Your task to perform on an android device: turn on improve location accuracy Image 0: 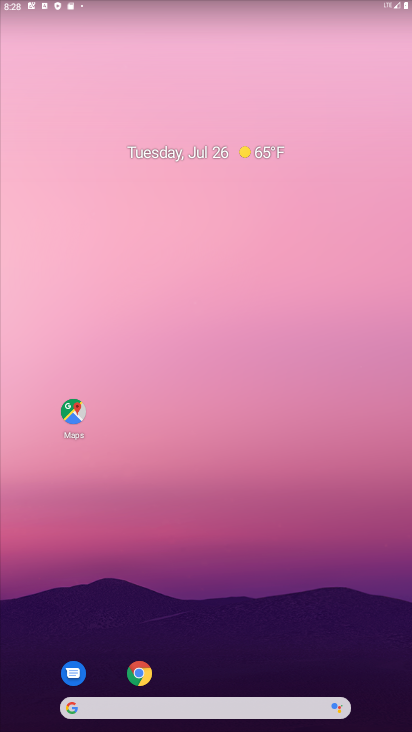
Step 0: drag from (211, 671) to (221, 238)
Your task to perform on an android device: turn on improve location accuracy Image 1: 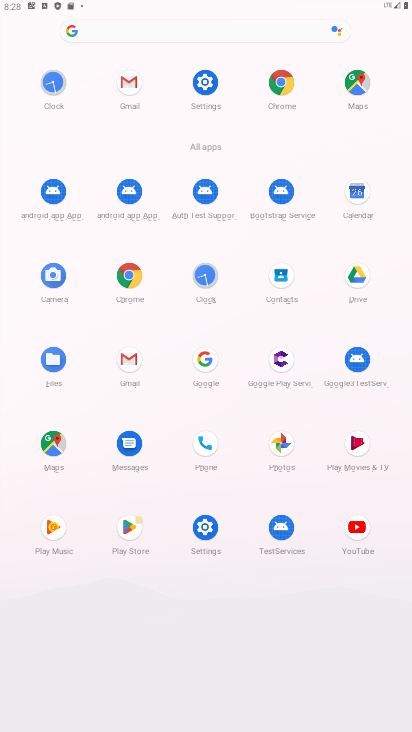
Step 1: click (214, 84)
Your task to perform on an android device: turn on improve location accuracy Image 2: 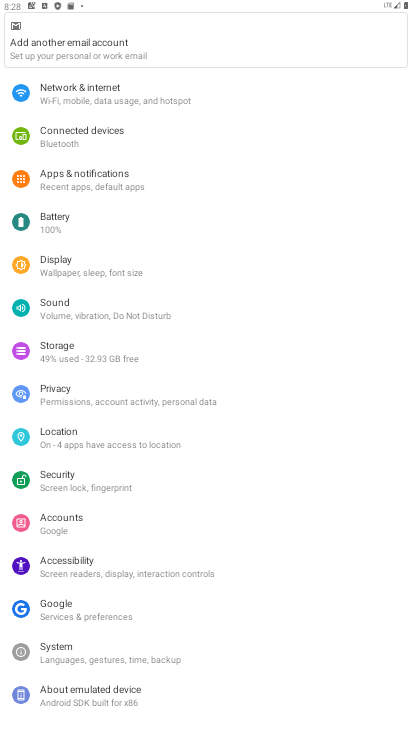
Step 2: click (124, 433)
Your task to perform on an android device: turn on improve location accuracy Image 3: 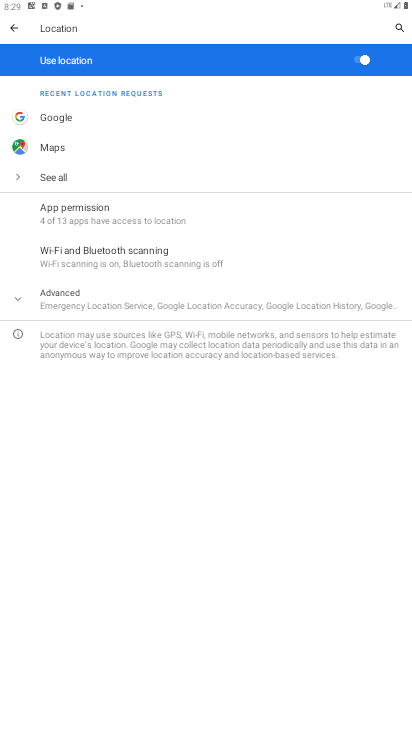
Step 3: click (75, 315)
Your task to perform on an android device: turn on improve location accuracy Image 4: 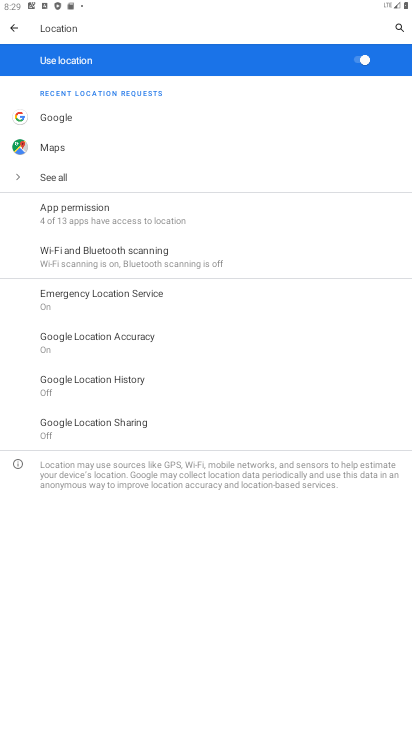
Step 4: click (138, 343)
Your task to perform on an android device: turn on improve location accuracy Image 5: 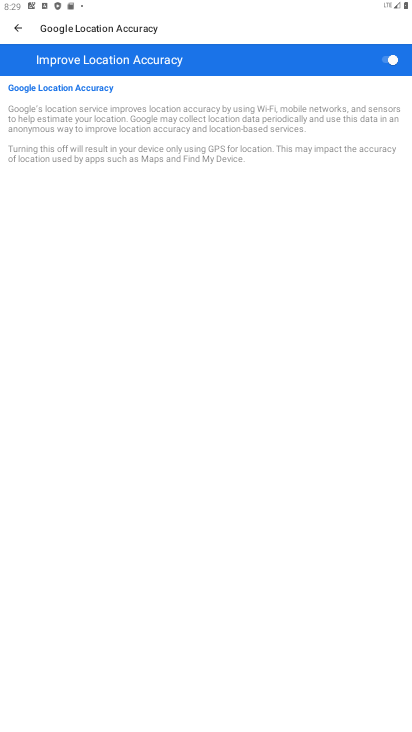
Step 5: task complete